Your task to perform on an android device: Open the stopwatch Image 0: 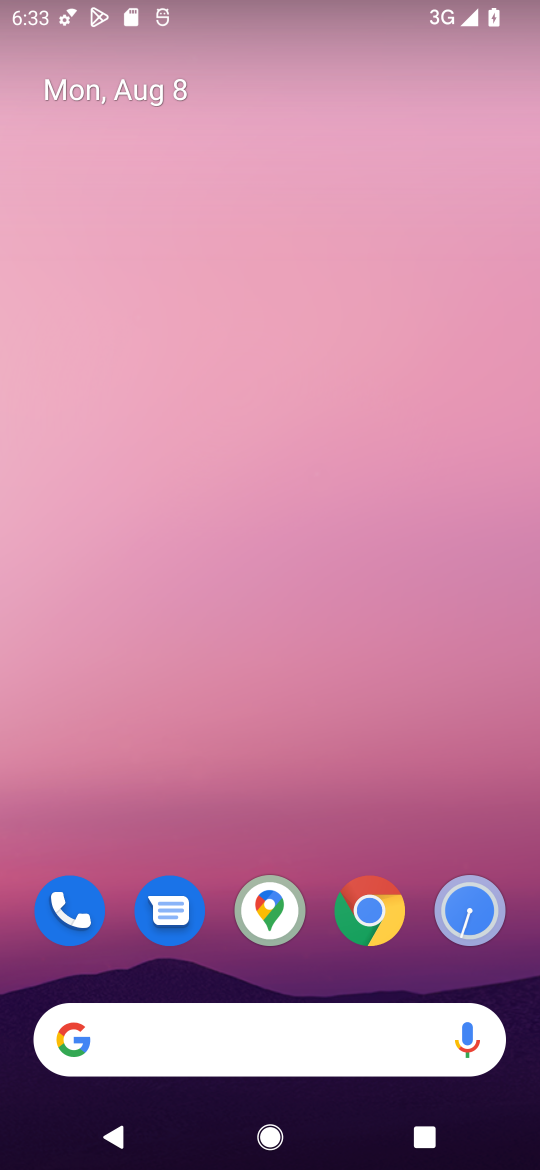
Step 0: drag from (269, 792) to (362, 65)
Your task to perform on an android device: Open the stopwatch Image 1: 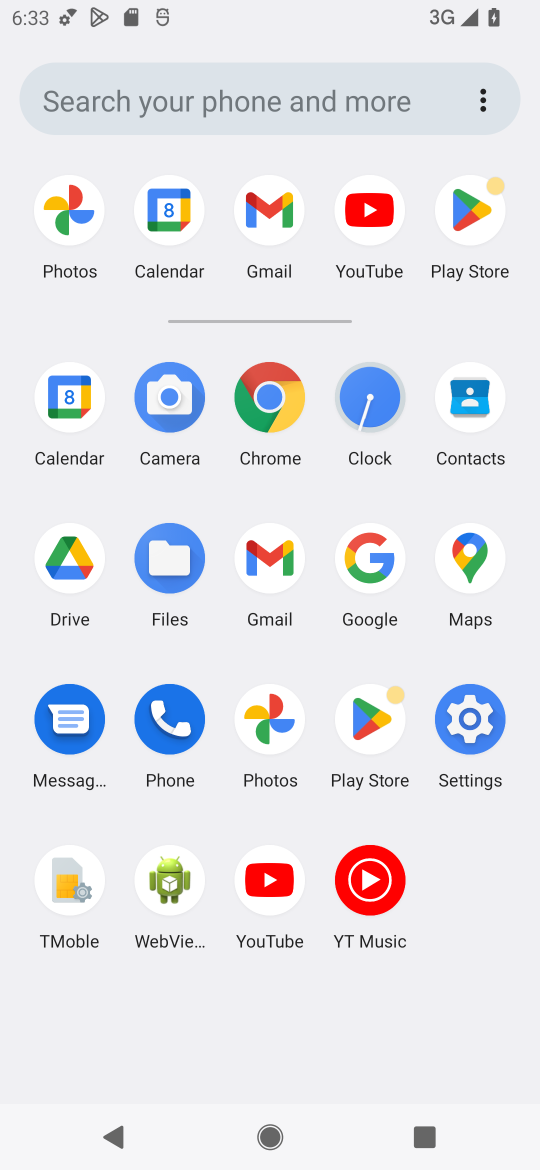
Step 1: click (375, 408)
Your task to perform on an android device: Open the stopwatch Image 2: 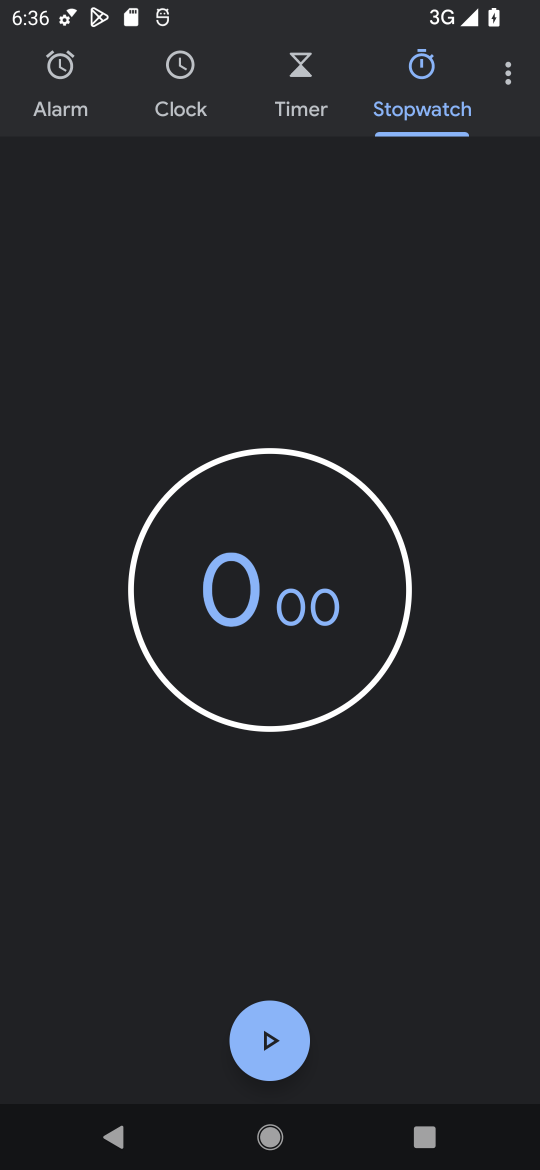
Step 2: task complete